Your task to perform on an android device: Open Yahoo.com Image 0: 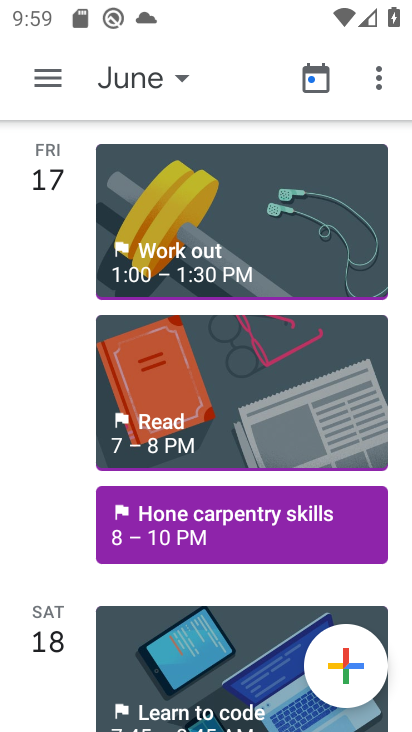
Step 0: press home button
Your task to perform on an android device: Open Yahoo.com Image 1: 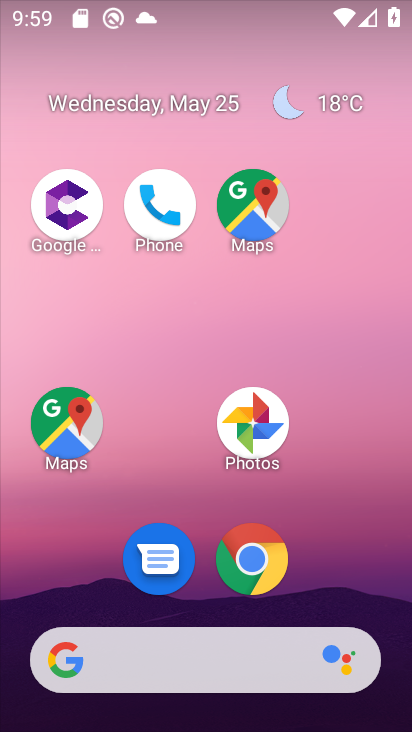
Step 1: click (254, 571)
Your task to perform on an android device: Open Yahoo.com Image 2: 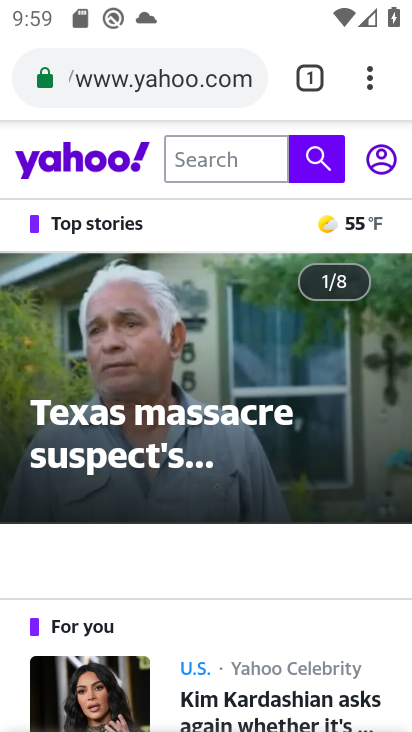
Step 2: task complete